Your task to perform on an android device: toggle notification dots Image 0: 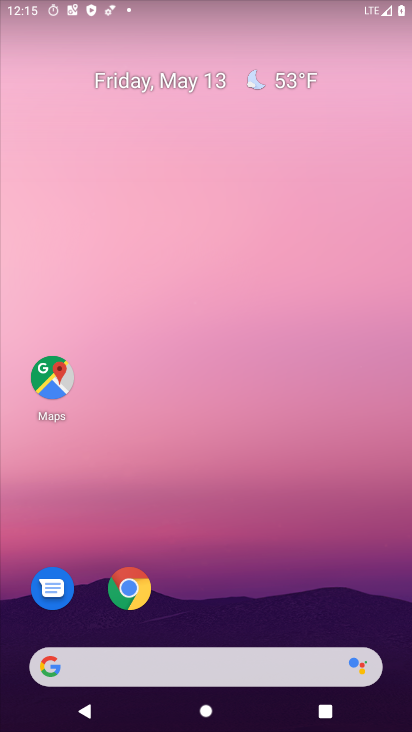
Step 0: press home button
Your task to perform on an android device: toggle notification dots Image 1: 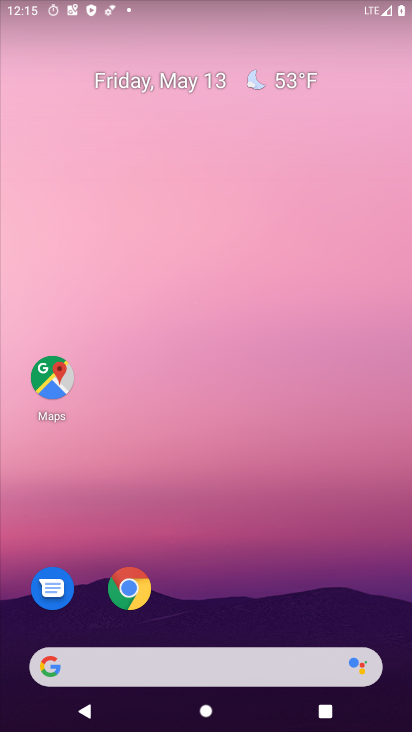
Step 1: drag from (308, 596) to (260, 107)
Your task to perform on an android device: toggle notification dots Image 2: 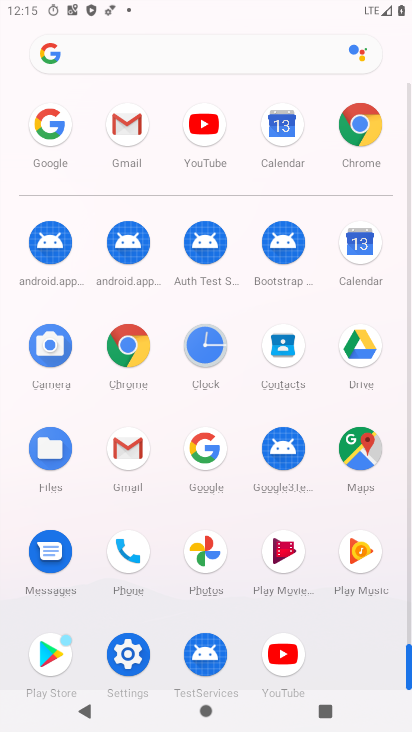
Step 2: drag from (154, 500) to (185, 142)
Your task to perform on an android device: toggle notification dots Image 3: 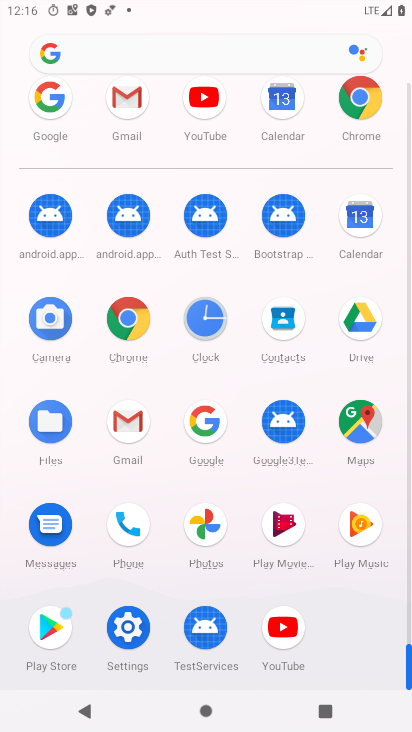
Step 3: click (119, 629)
Your task to perform on an android device: toggle notification dots Image 4: 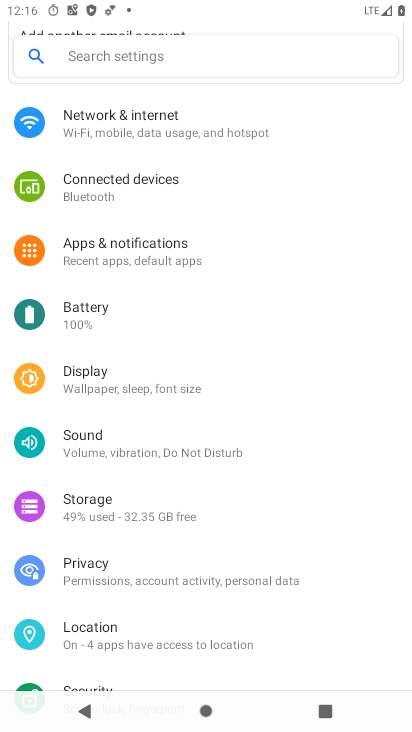
Step 4: drag from (160, 621) to (243, 660)
Your task to perform on an android device: toggle notification dots Image 5: 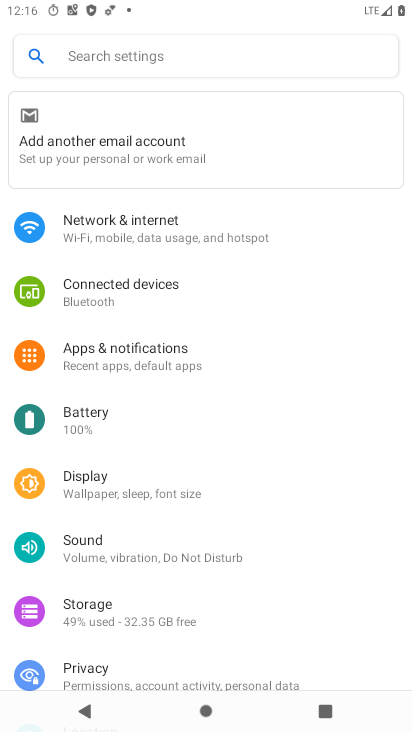
Step 5: click (146, 354)
Your task to perform on an android device: toggle notification dots Image 6: 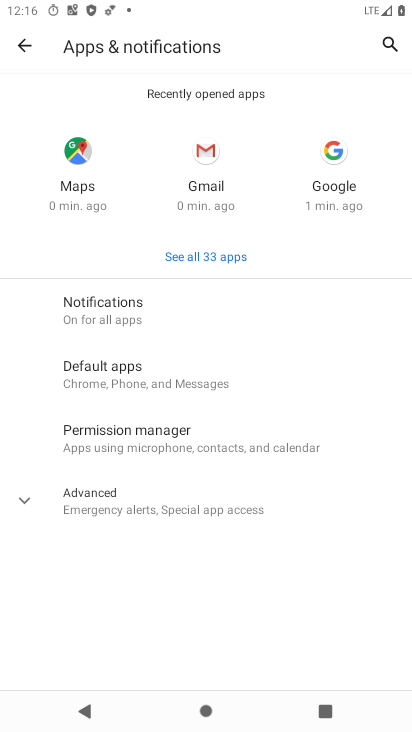
Step 6: click (131, 319)
Your task to perform on an android device: toggle notification dots Image 7: 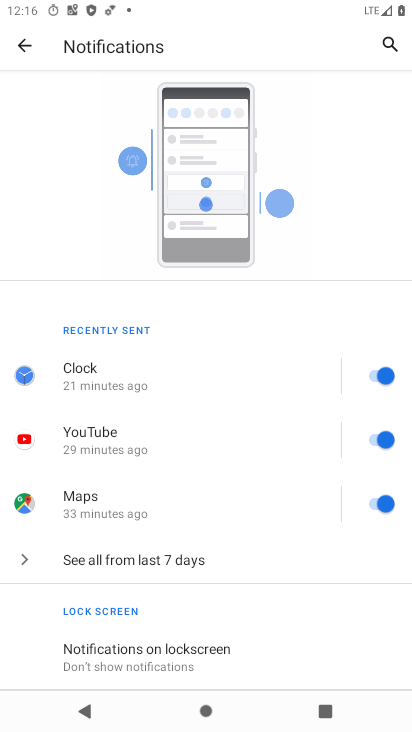
Step 7: drag from (267, 582) to (232, 206)
Your task to perform on an android device: toggle notification dots Image 8: 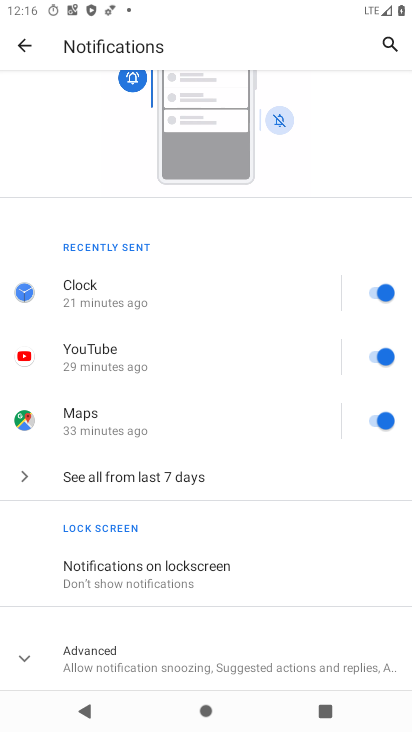
Step 8: drag from (313, 673) to (322, 191)
Your task to perform on an android device: toggle notification dots Image 9: 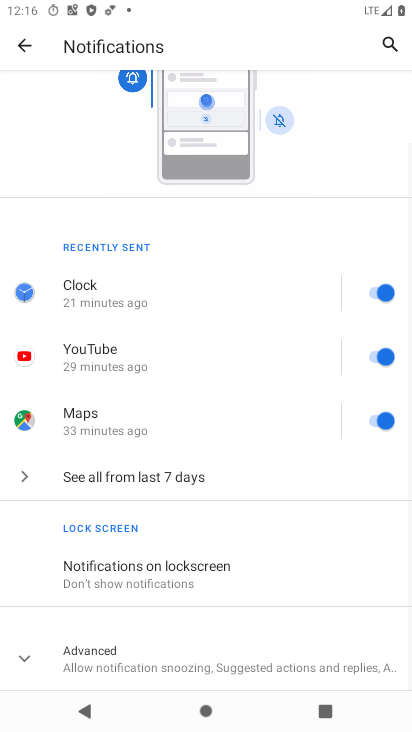
Step 9: click (204, 663)
Your task to perform on an android device: toggle notification dots Image 10: 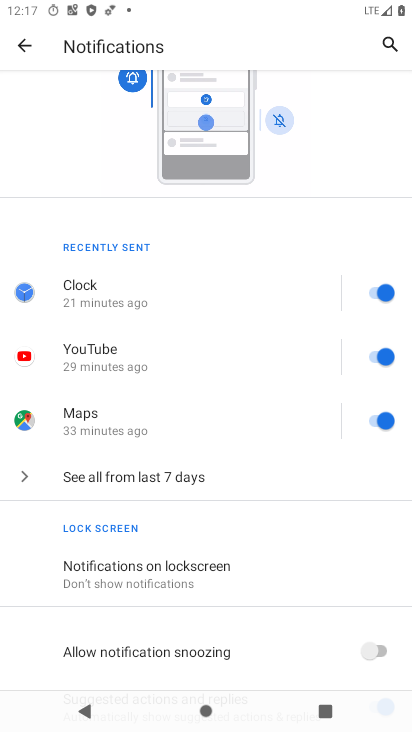
Step 10: drag from (233, 604) to (236, 326)
Your task to perform on an android device: toggle notification dots Image 11: 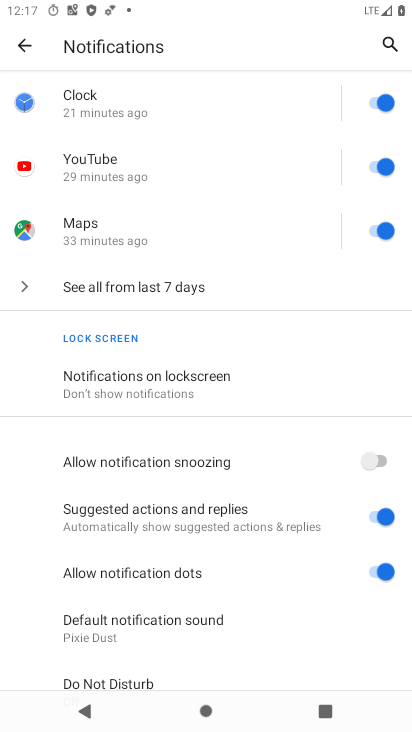
Step 11: click (388, 568)
Your task to perform on an android device: toggle notification dots Image 12: 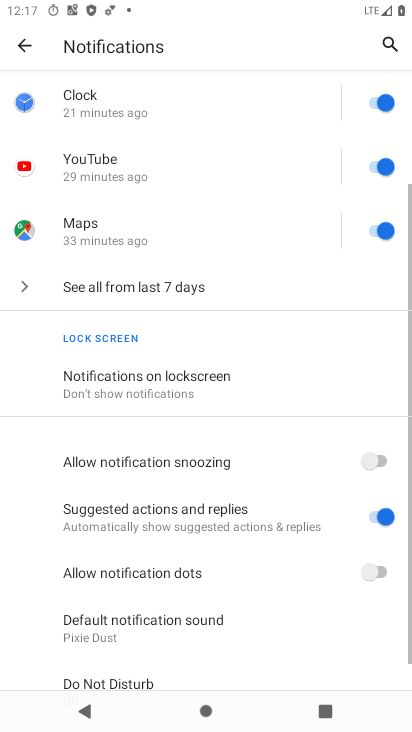
Step 12: task complete